Your task to perform on an android device: check the backup settings in the google photos Image 0: 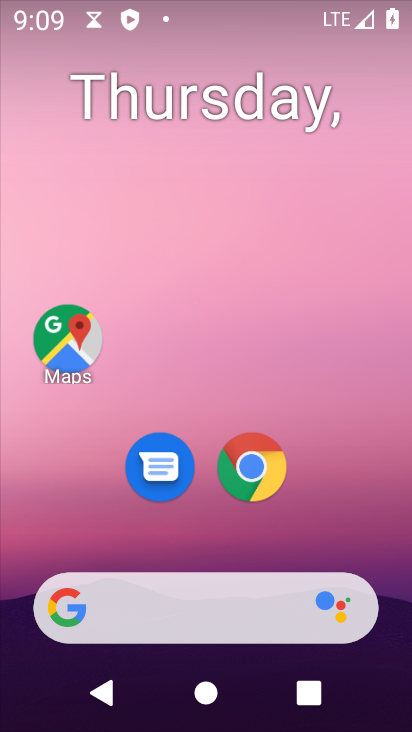
Step 0: drag from (355, 547) to (354, 209)
Your task to perform on an android device: check the backup settings in the google photos Image 1: 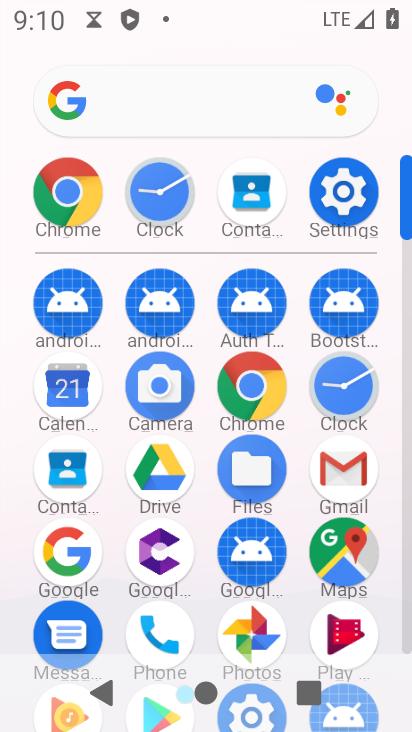
Step 1: click (237, 634)
Your task to perform on an android device: check the backup settings in the google photos Image 2: 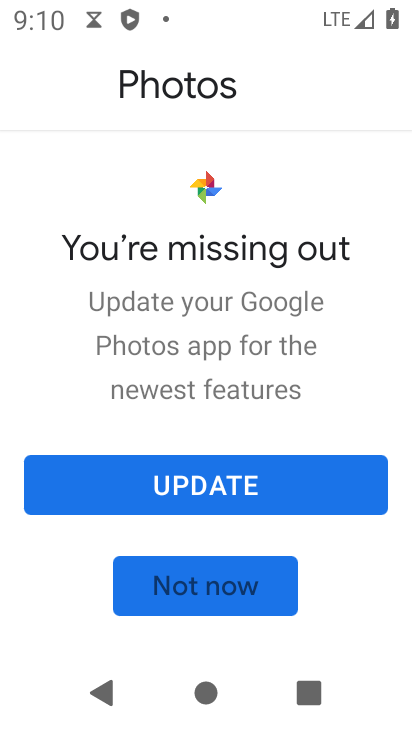
Step 2: click (243, 477)
Your task to perform on an android device: check the backup settings in the google photos Image 3: 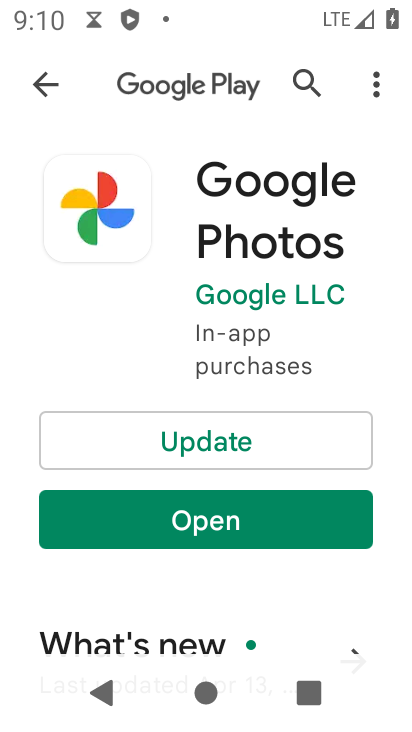
Step 3: click (189, 445)
Your task to perform on an android device: check the backup settings in the google photos Image 4: 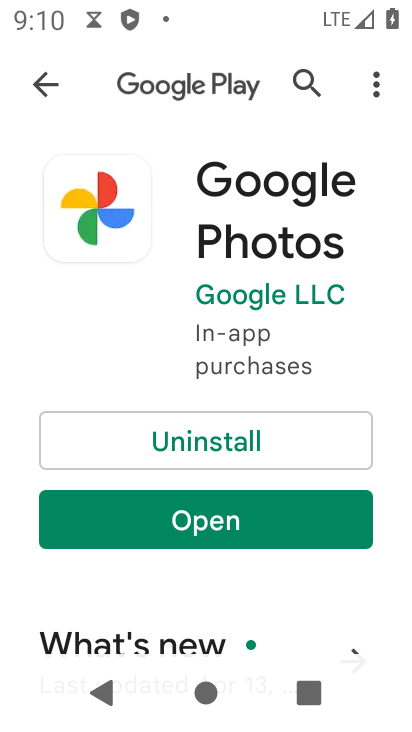
Step 4: click (311, 507)
Your task to perform on an android device: check the backup settings in the google photos Image 5: 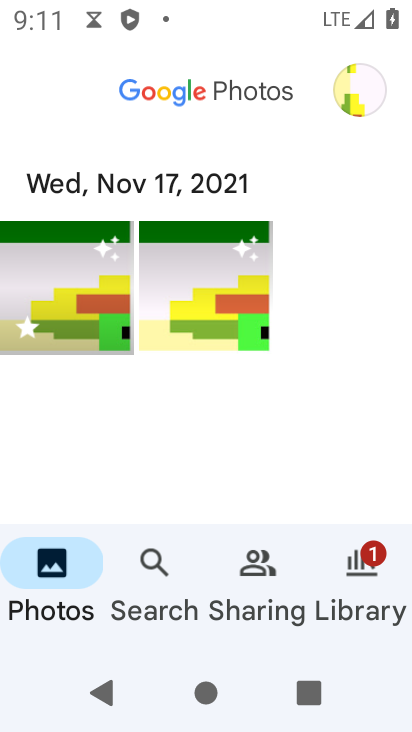
Step 5: click (352, 101)
Your task to perform on an android device: check the backup settings in the google photos Image 6: 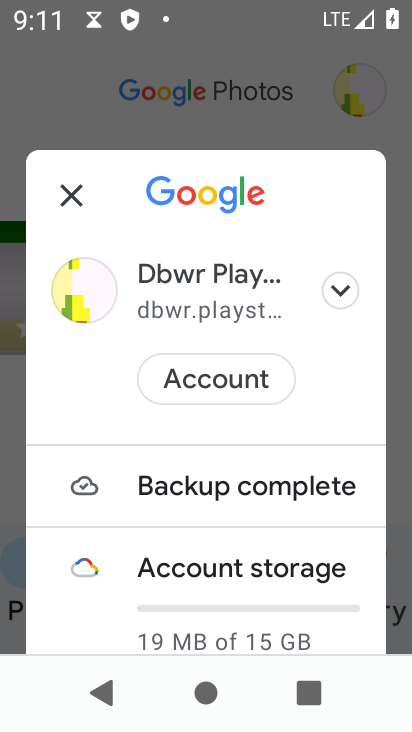
Step 6: drag from (239, 512) to (250, 260)
Your task to perform on an android device: check the backup settings in the google photos Image 7: 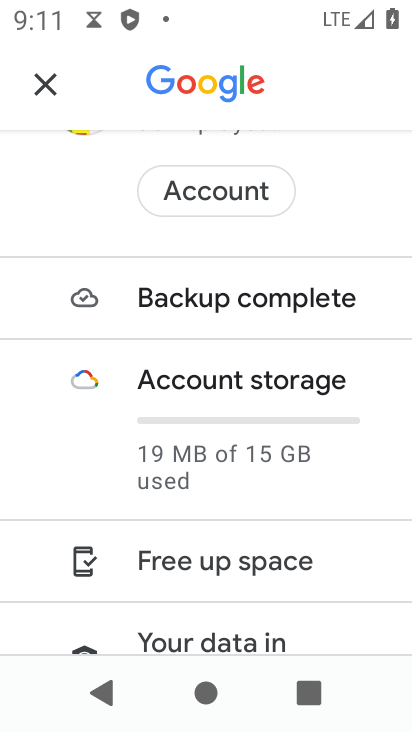
Step 7: drag from (251, 572) to (268, 320)
Your task to perform on an android device: check the backup settings in the google photos Image 8: 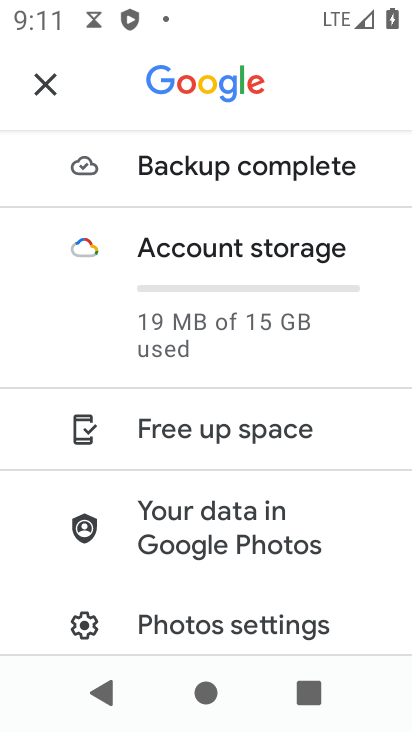
Step 8: click (212, 616)
Your task to perform on an android device: check the backup settings in the google photos Image 9: 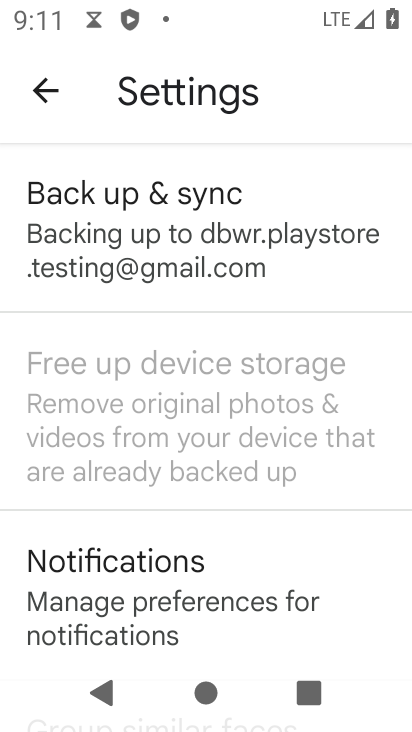
Step 9: click (229, 230)
Your task to perform on an android device: check the backup settings in the google photos Image 10: 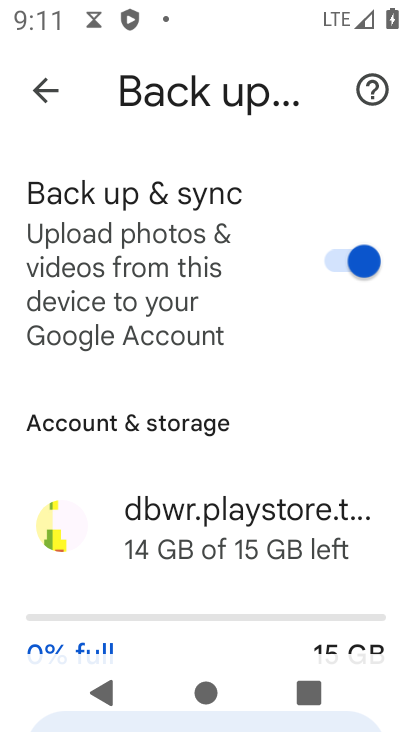
Step 10: task complete